Your task to perform on an android device: turn on location history Image 0: 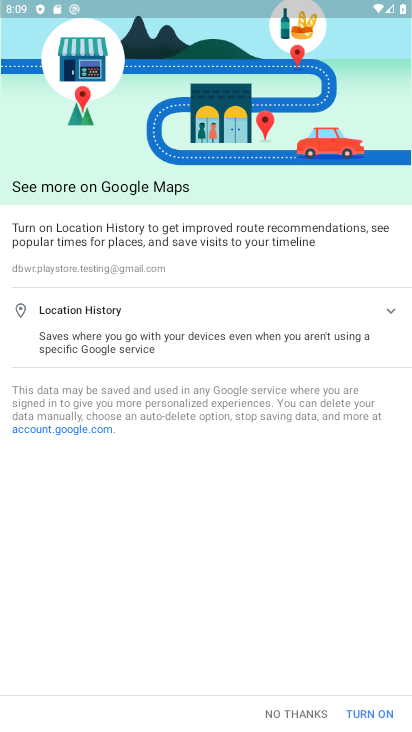
Step 0: task complete